Your task to perform on an android device: Open privacy settings Image 0: 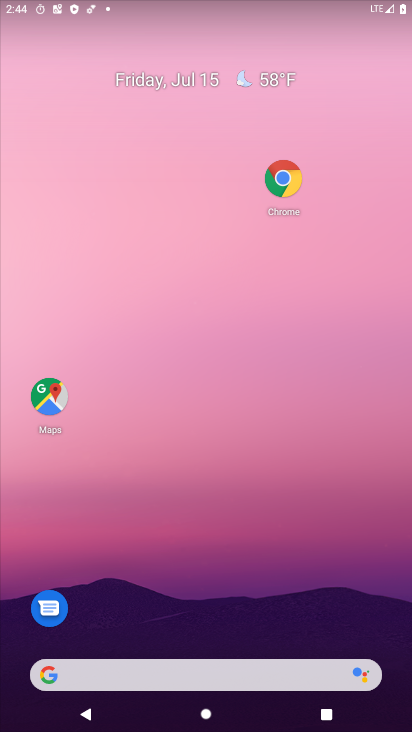
Step 0: drag from (209, 594) to (218, 188)
Your task to perform on an android device: Open privacy settings Image 1: 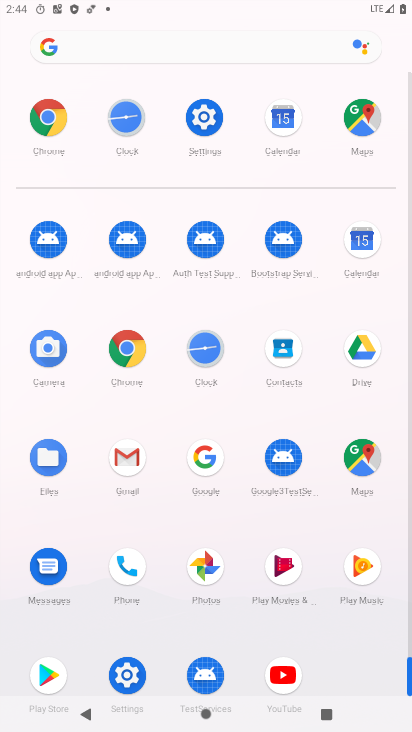
Step 1: click (120, 680)
Your task to perform on an android device: Open privacy settings Image 2: 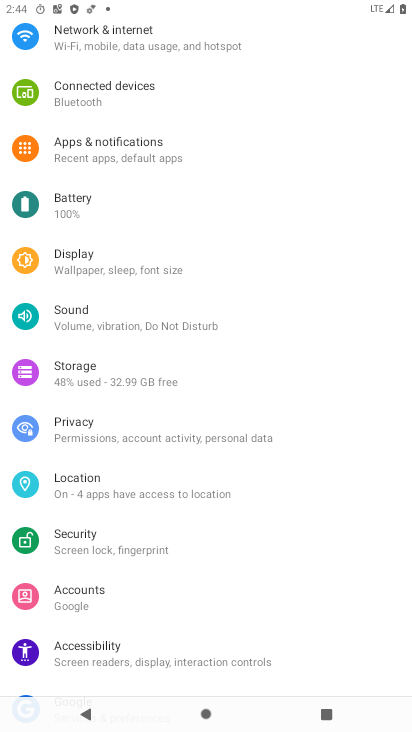
Step 2: click (75, 418)
Your task to perform on an android device: Open privacy settings Image 3: 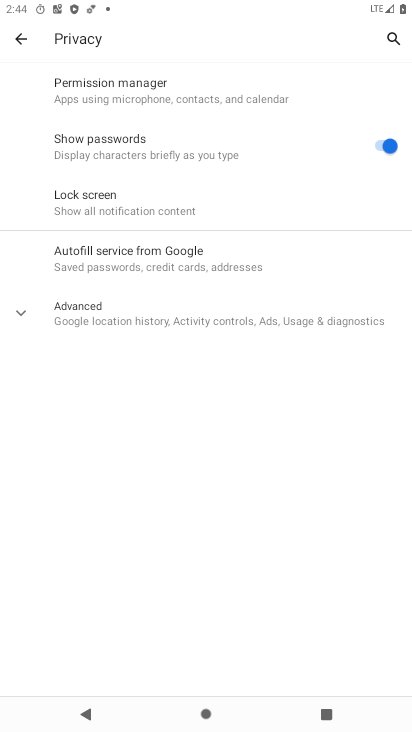
Step 3: task complete